Your task to perform on an android device: Go to calendar. Show me events next week Image 0: 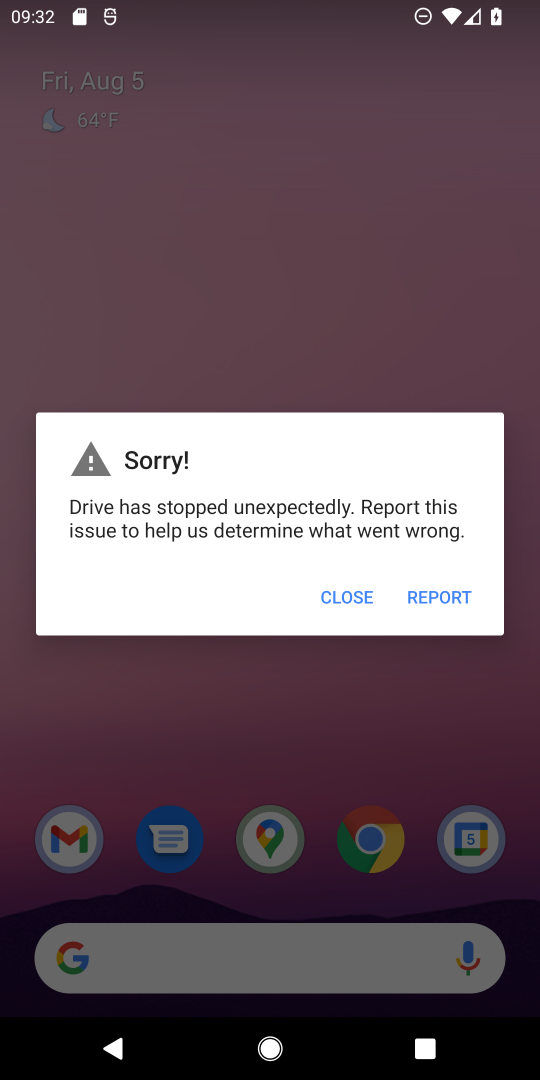
Step 0: click (343, 589)
Your task to perform on an android device: Go to calendar. Show me events next week Image 1: 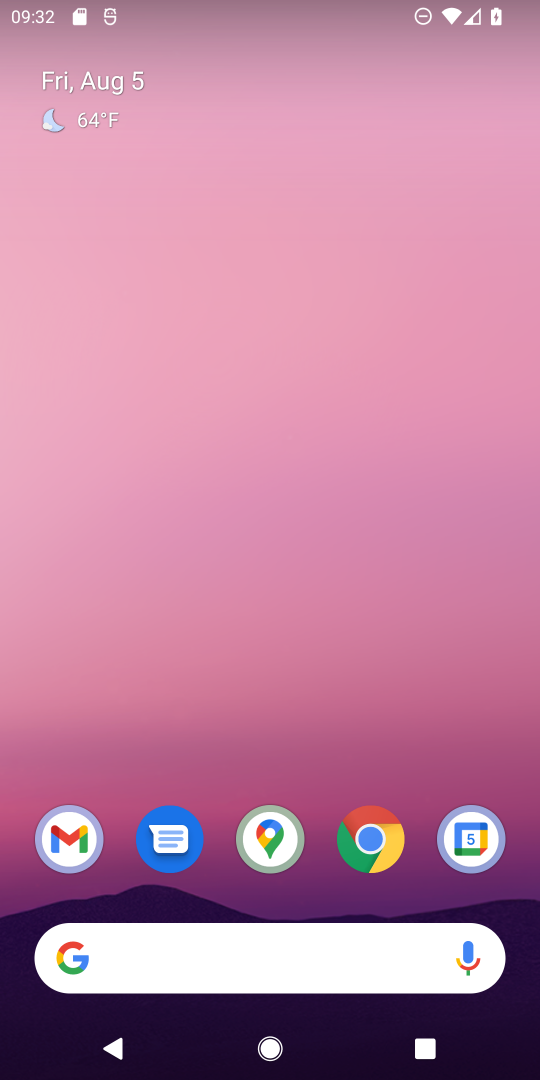
Step 1: drag from (313, 844) to (313, 296)
Your task to perform on an android device: Go to calendar. Show me events next week Image 2: 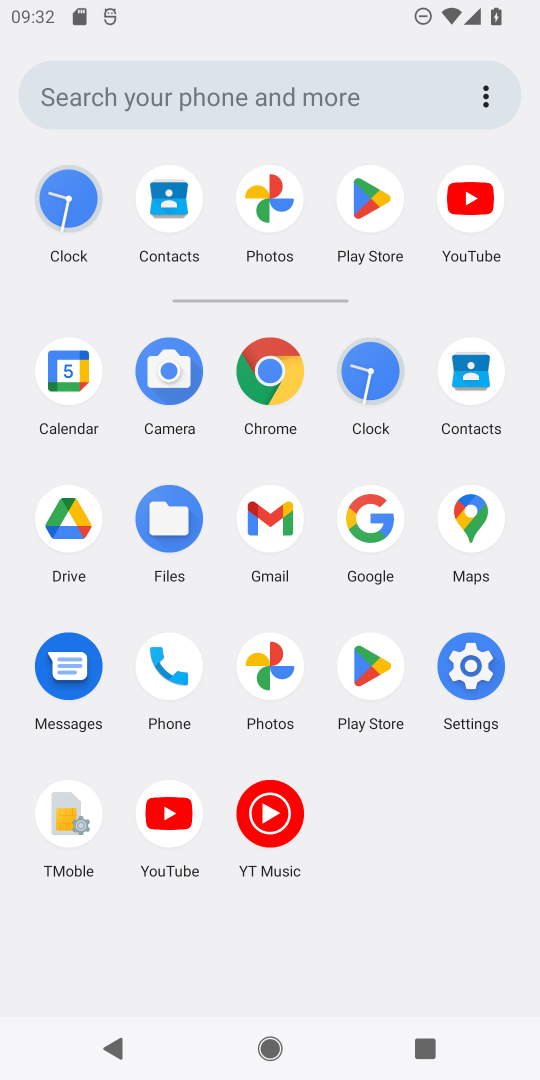
Step 2: click (66, 381)
Your task to perform on an android device: Go to calendar. Show me events next week Image 3: 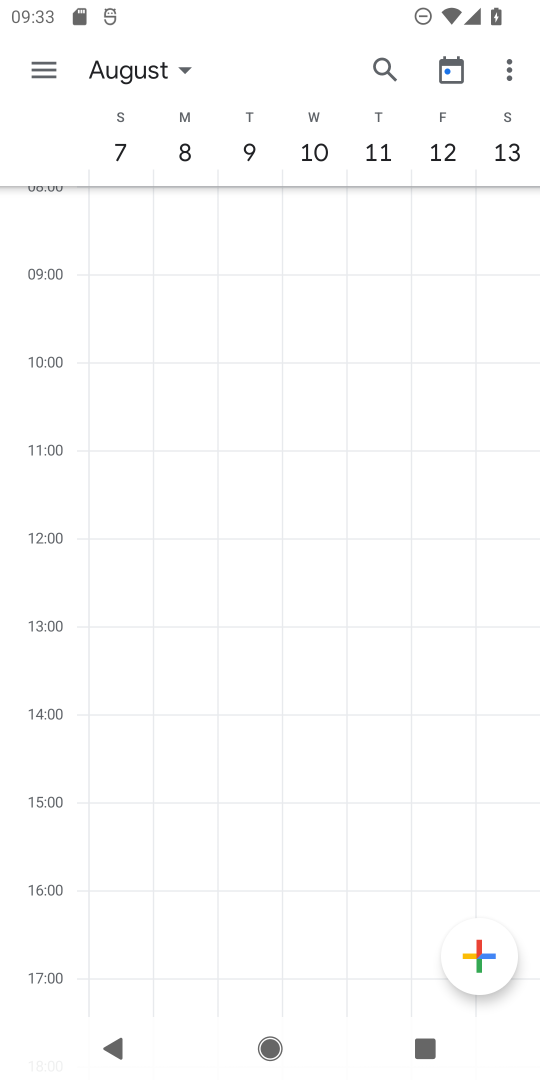
Step 3: task complete